Your task to perform on an android device: Open location settings Image 0: 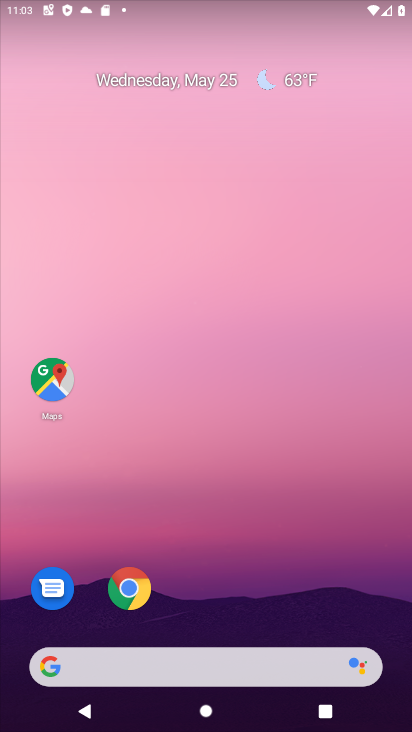
Step 0: drag from (230, 607) to (258, 48)
Your task to perform on an android device: Open location settings Image 1: 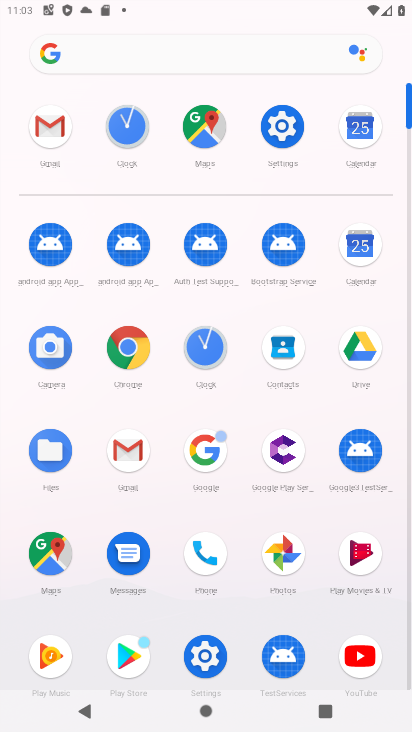
Step 1: click (279, 351)
Your task to perform on an android device: Open location settings Image 2: 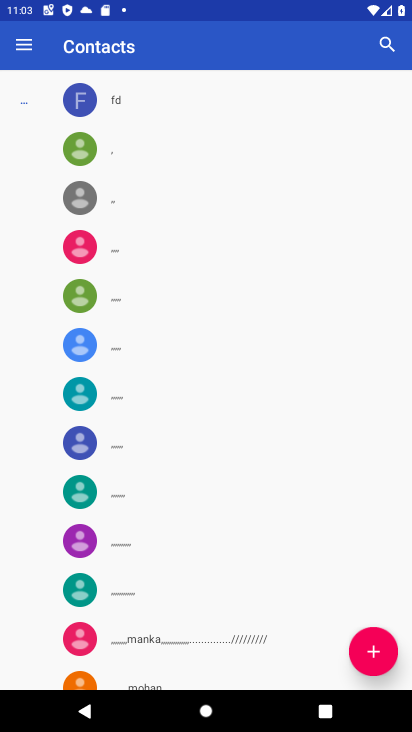
Step 2: press home button
Your task to perform on an android device: Open location settings Image 3: 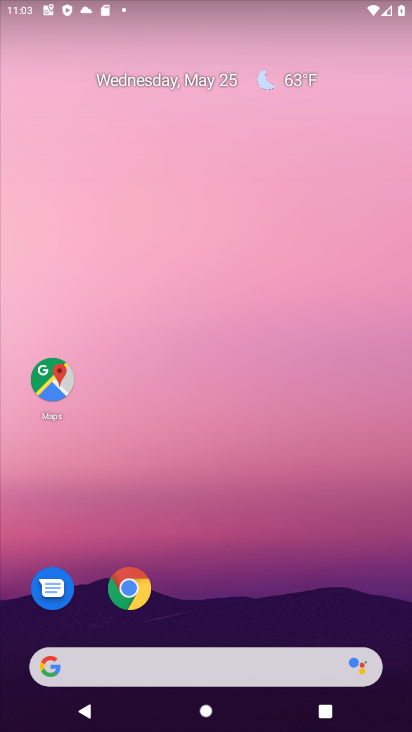
Step 3: drag from (296, 630) to (312, 20)
Your task to perform on an android device: Open location settings Image 4: 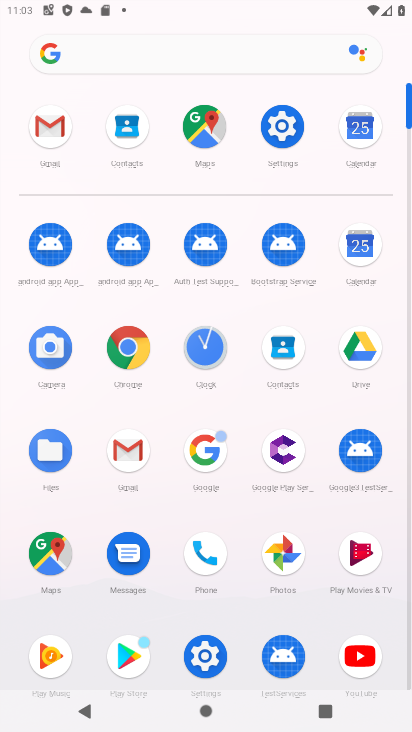
Step 4: click (192, 670)
Your task to perform on an android device: Open location settings Image 5: 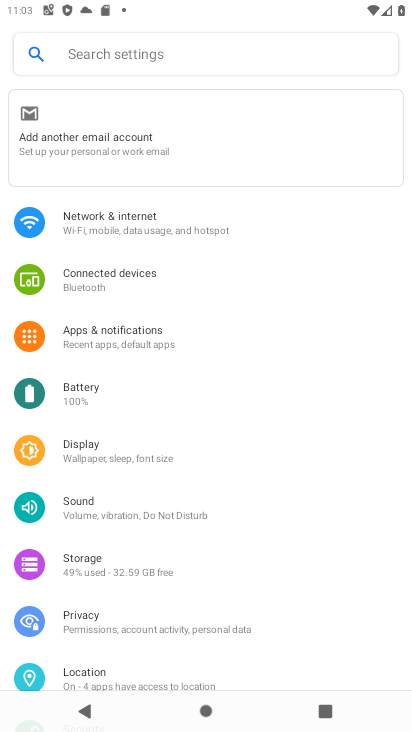
Step 5: click (104, 669)
Your task to perform on an android device: Open location settings Image 6: 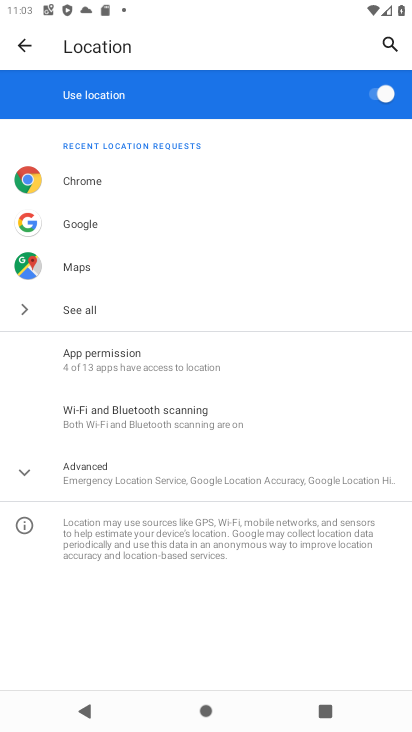
Step 6: task complete